Your task to perform on an android device: change keyboard looks Image 0: 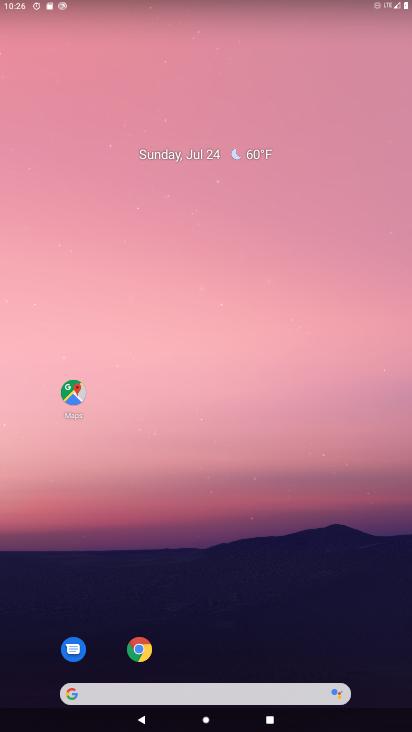
Step 0: drag from (313, 528) to (276, 7)
Your task to perform on an android device: change keyboard looks Image 1: 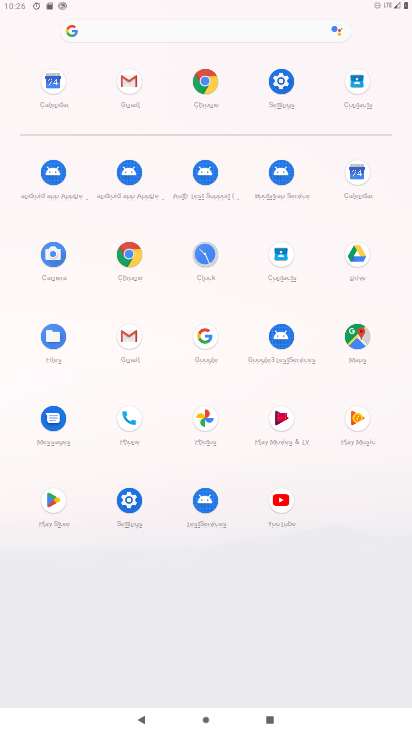
Step 1: click (283, 79)
Your task to perform on an android device: change keyboard looks Image 2: 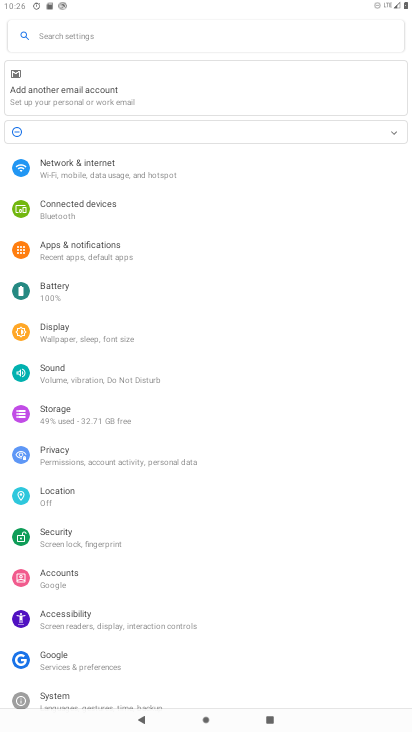
Step 2: drag from (160, 676) to (230, 102)
Your task to perform on an android device: change keyboard looks Image 3: 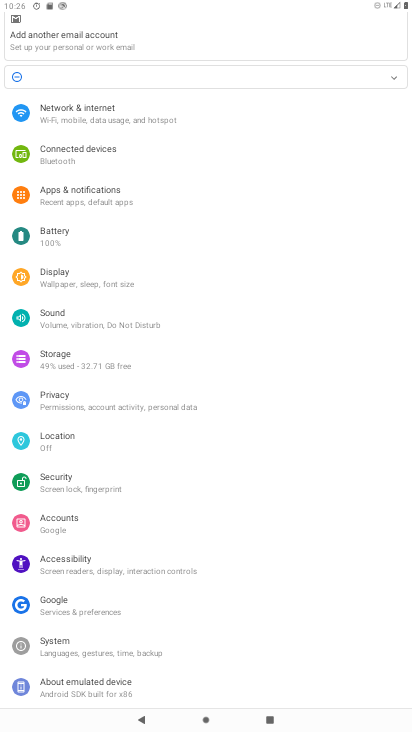
Step 3: click (38, 647)
Your task to perform on an android device: change keyboard looks Image 4: 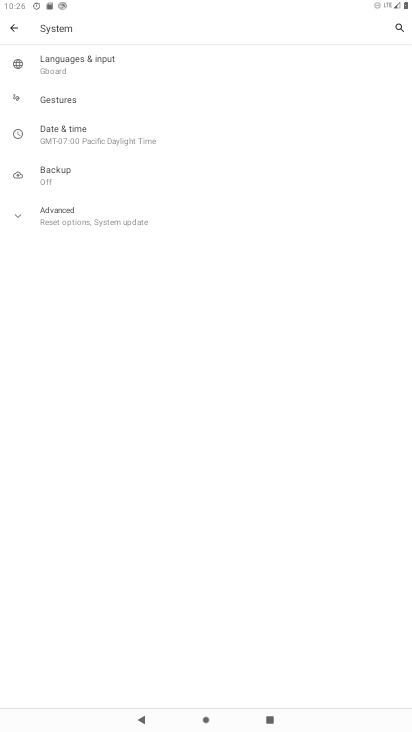
Step 4: click (74, 68)
Your task to perform on an android device: change keyboard looks Image 5: 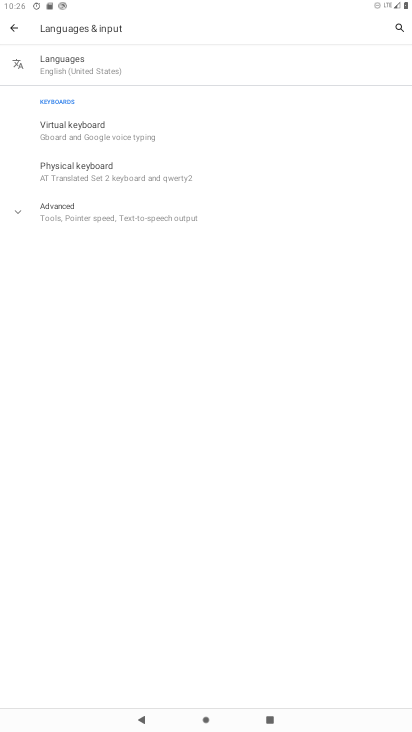
Step 5: click (98, 137)
Your task to perform on an android device: change keyboard looks Image 6: 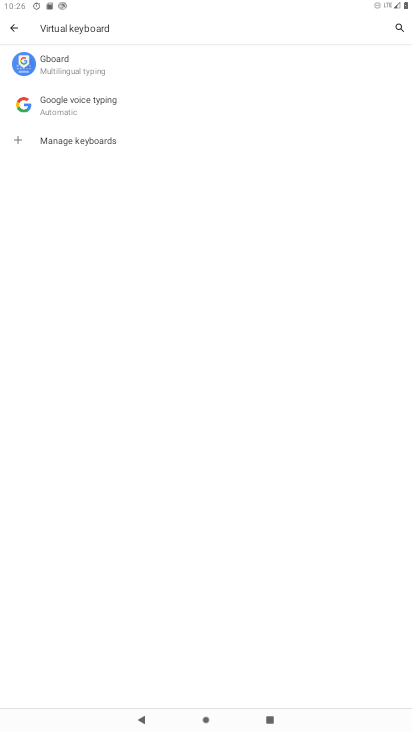
Step 6: click (10, 21)
Your task to perform on an android device: change keyboard looks Image 7: 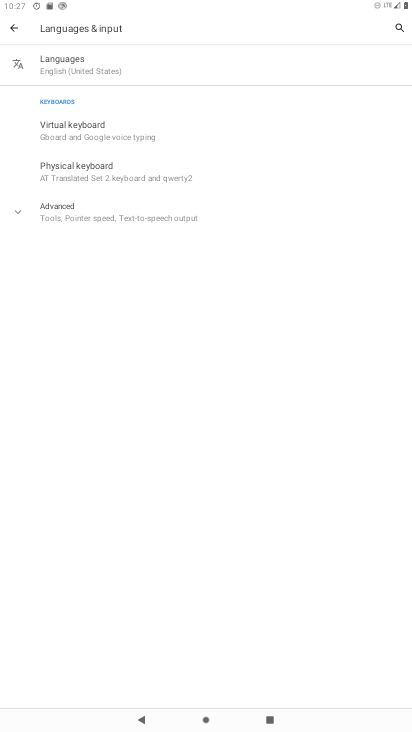
Step 7: click (75, 137)
Your task to perform on an android device: change keyboard looks Image 8: 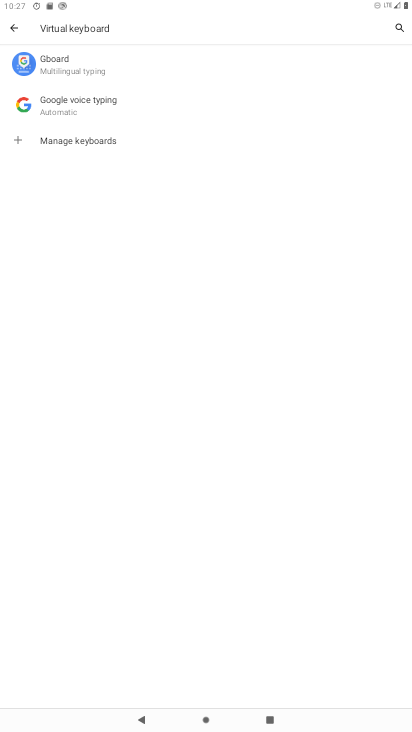
Step 8: click (15, 23)
Your task to perform on an android device: change keyboard looks Image 9: 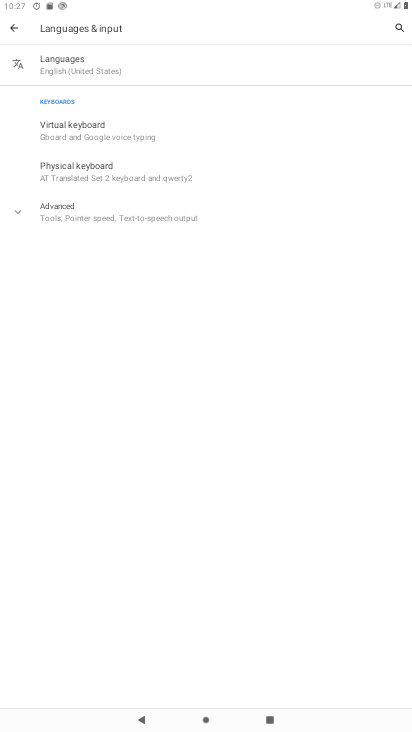
Step 9: click (73, 122)
Your task to perform on an android device: change keyboard looks Image 10: 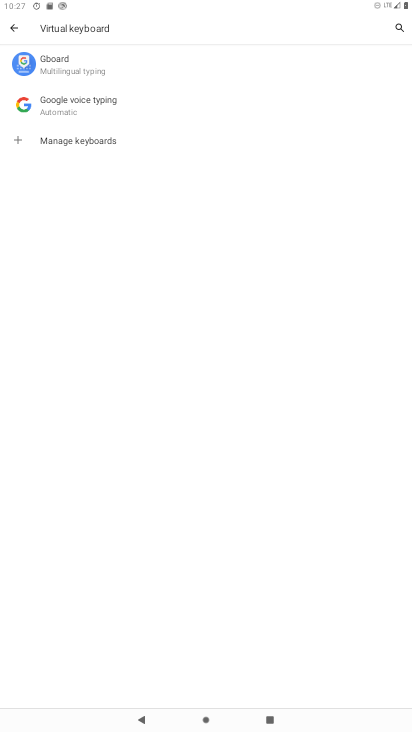
Step 10: click (74, 60)
Your task to perform on an android device: change keyboard looks Image 11: 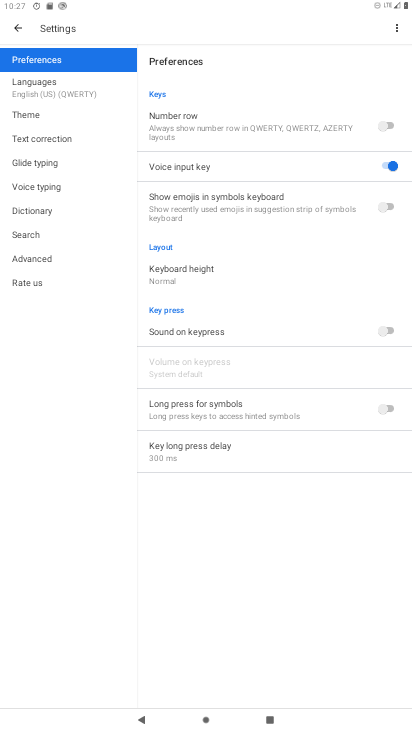
Step 11: click (39, 113)
Your task to perform on an android device: change keyboard looks Image 12: 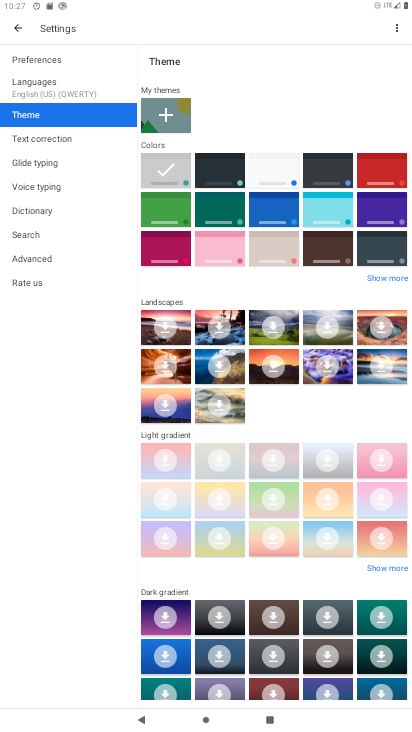
Step 12: click (265, 176)
Your task to perform on an android device: change keyboard looks Image 13: 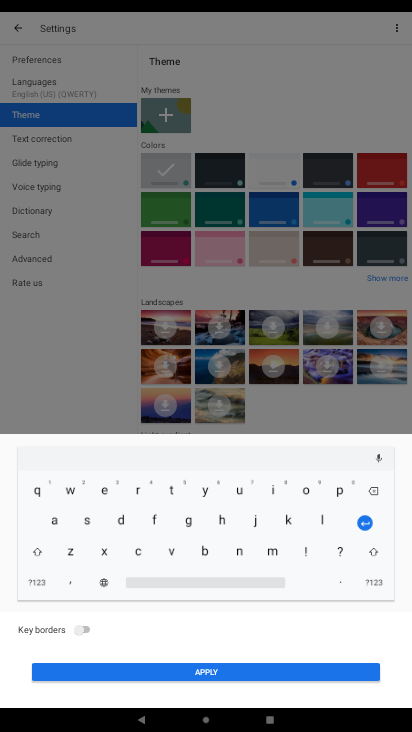
Step 13: click (217, 671)
Your task to perform on an android device: change keyboard looks Image 14: 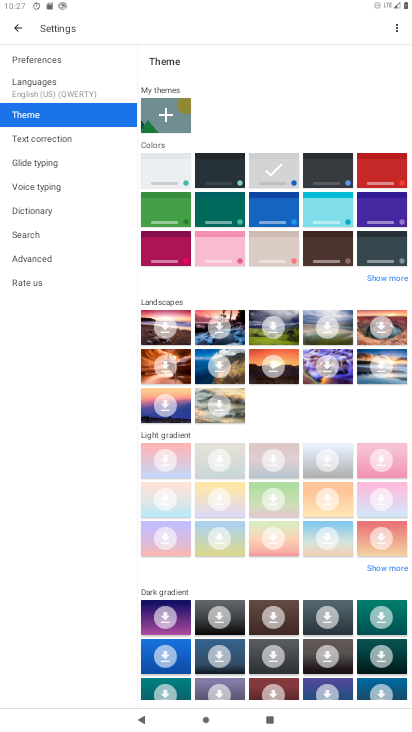
Step 14: task complete